Your task to perform on an android device: When is my next meeting? Image 0: 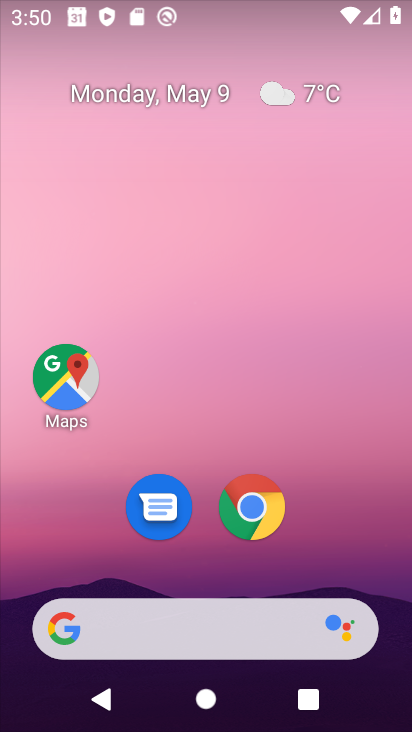
Step 0: drag from (256, 672) to (244, 182)
Your task to perform on an android device: When is my next meeting? Image 1: 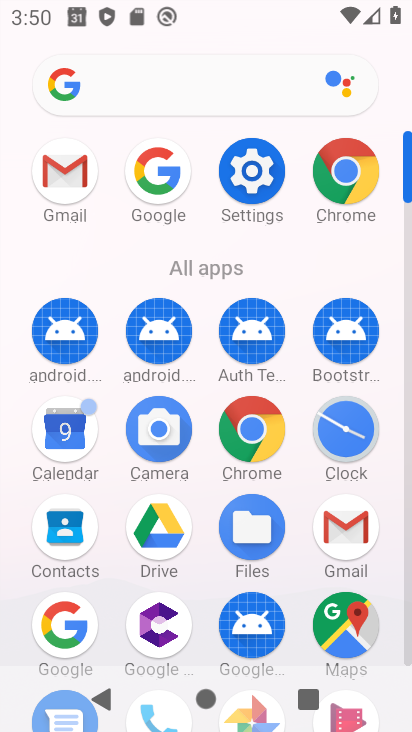
Step 1: click (82, 419)
Your task to perform on an android device: When is my next meeting? Image 2: 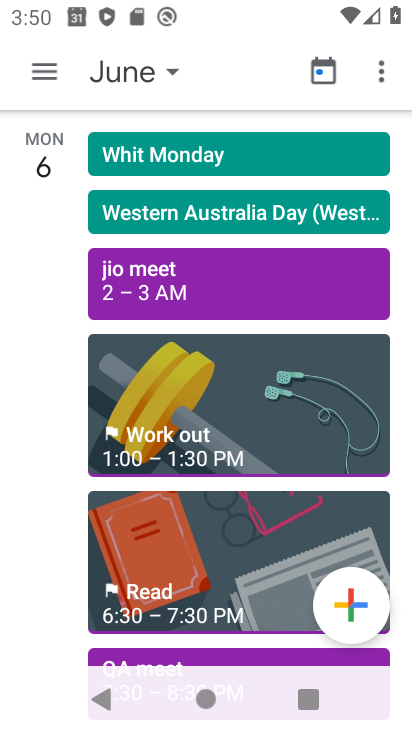
Step 2: click (42, 74)
Your task to perform on an android device: When is my next meeting? Image 3: 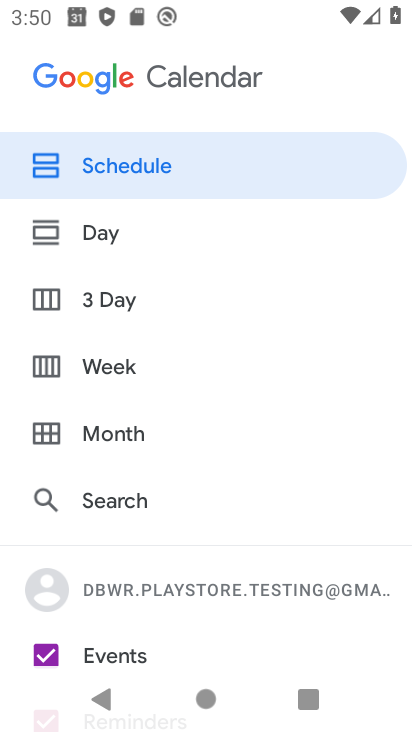
Step 3: click (111, 167)
Your task to perform on an android device: When is my next meeting? Image 4: 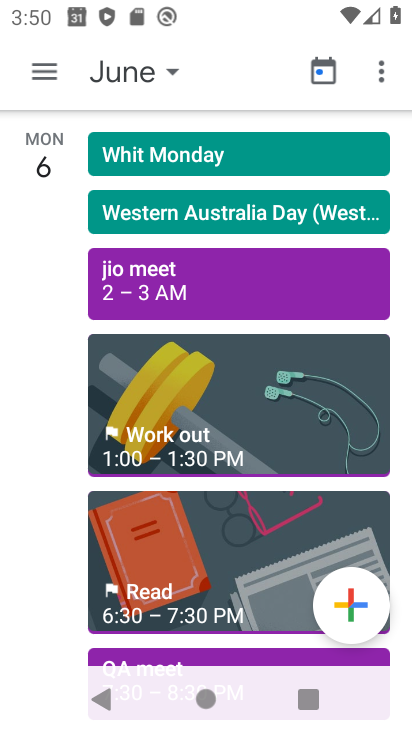
Step 4: task complete